Your task to perform on an android device: Go to battery settings Image 0: 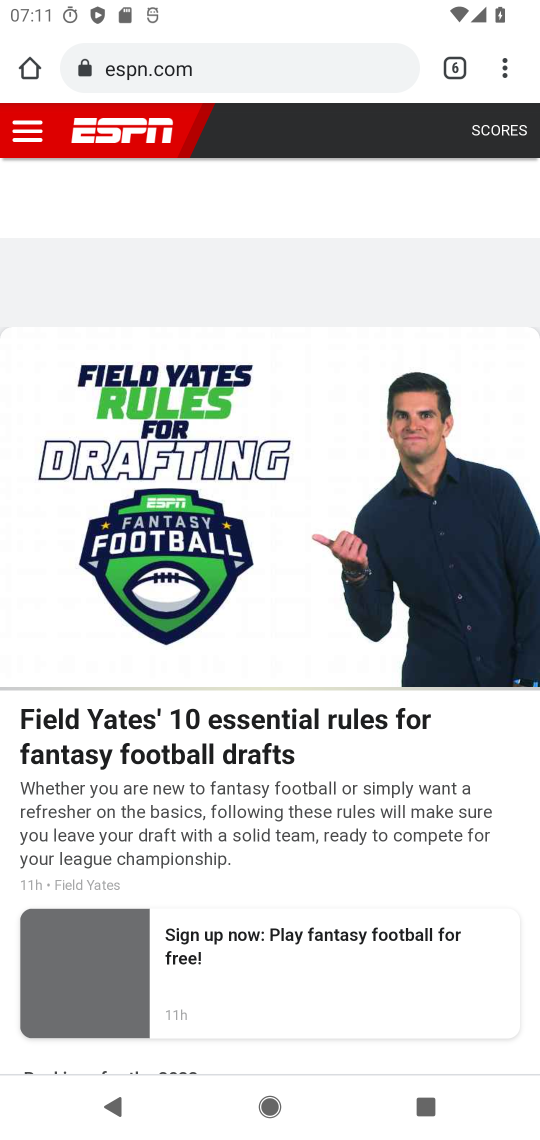
Step 0: press home button
Your task to perform on an android device: Go to battery settings Image 1: 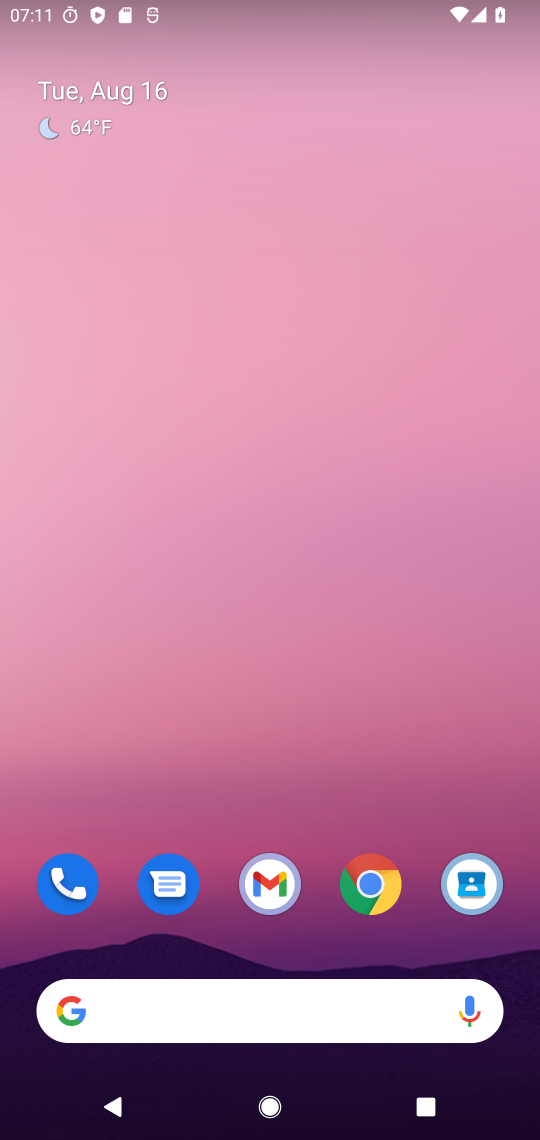
Step 1: drag from (262, 783) to (291, 63)
Your task to perform on an android device: Go to battery settings Image 2: 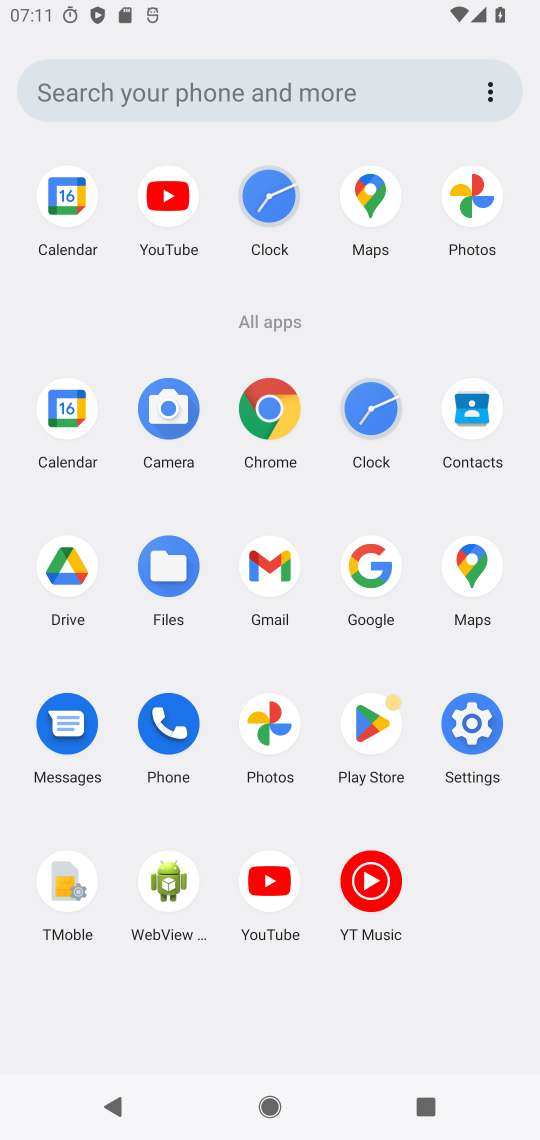
Step 2: click (479, 740)
Your task to perform on an android device: Go to battery settings Image 3: 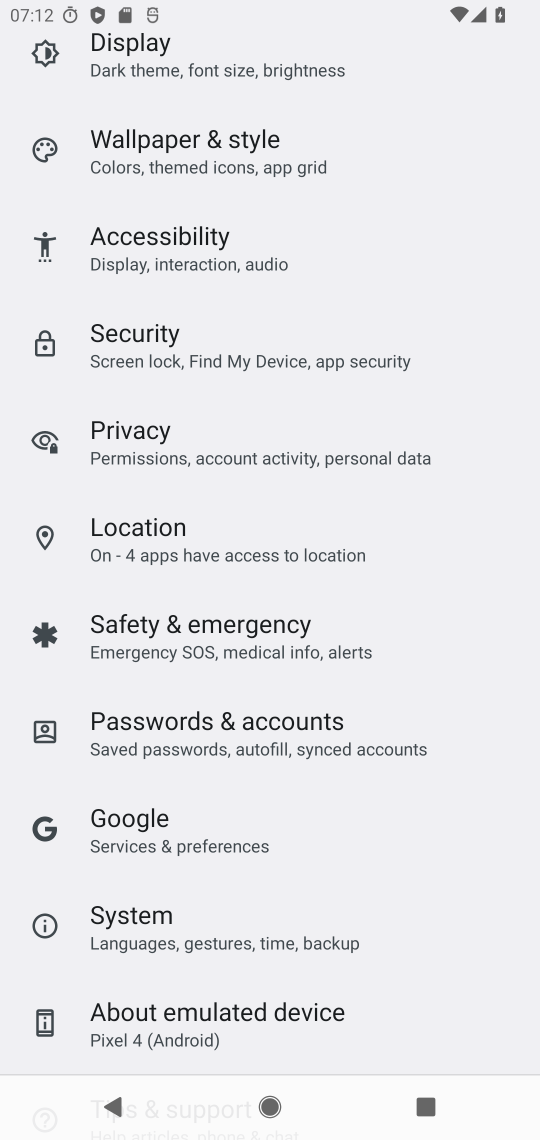
Step 3: drag from (219, 500) to (248, 166)
Your task to perform on an android device: Go to battery settings Image 4: 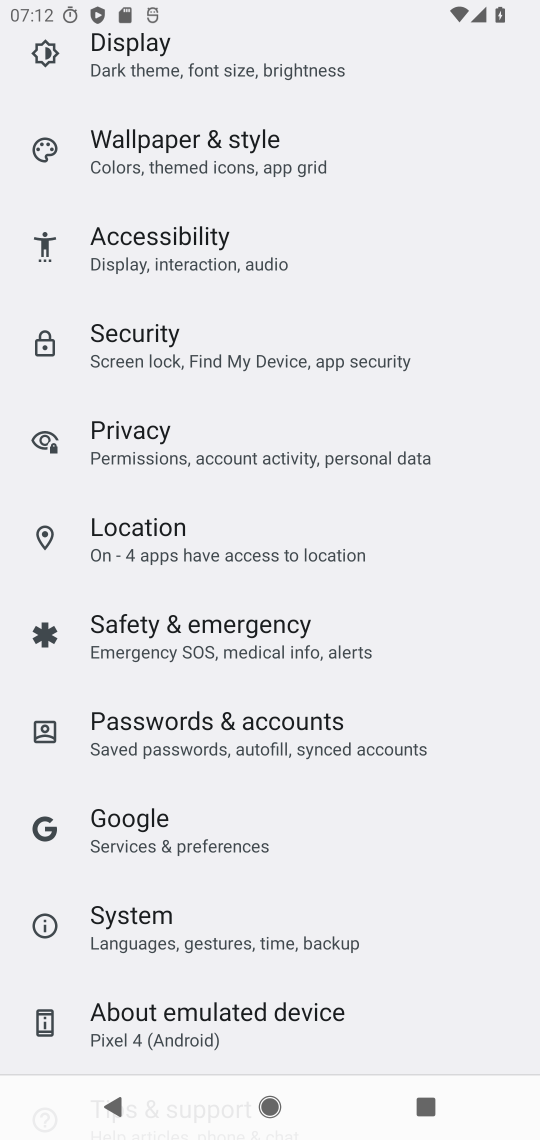
Step 4: drag from (245, 301) to (191, 1131)
Your task to perform on an android device: Go to battery settings Image 5: 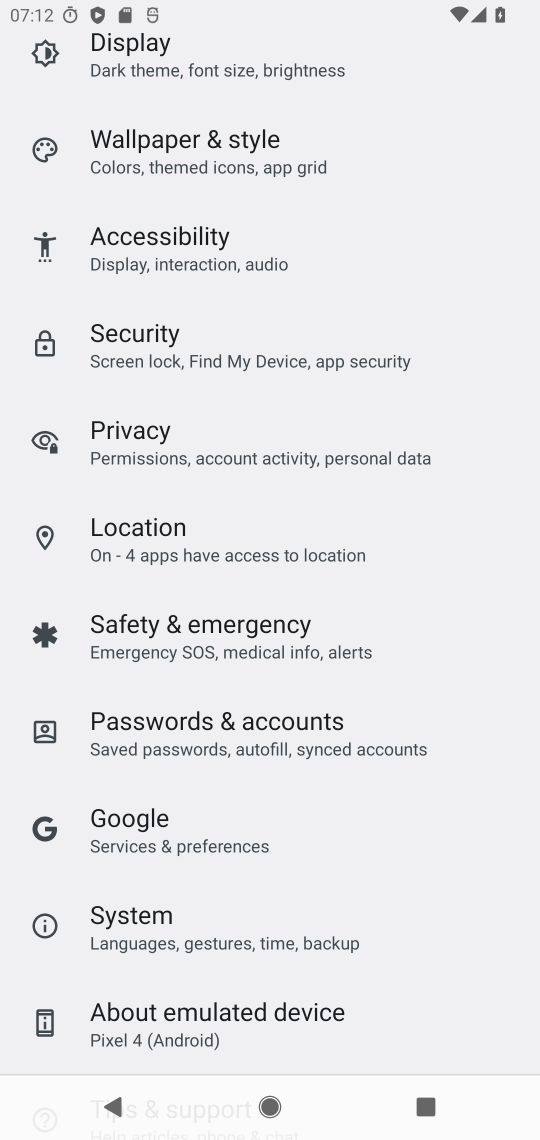
Step 5: drag from (265, 100) to (297, 1015)
Your task to perform on an android device: Go to battery settings Image 6: 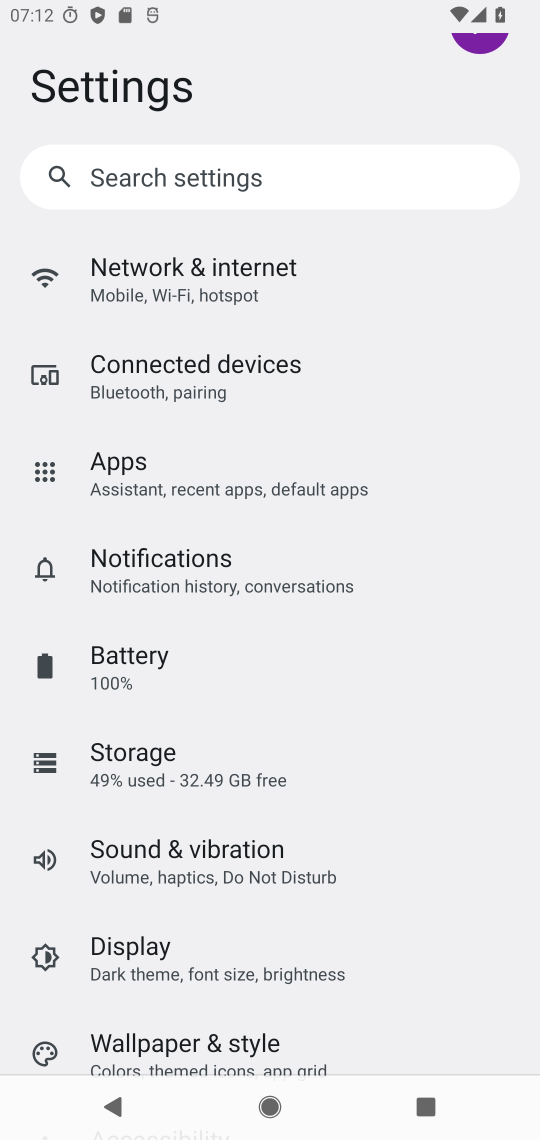
Step 6: click (161, 656)
Your task to perform on an android device: Go to battery settings Image 7: 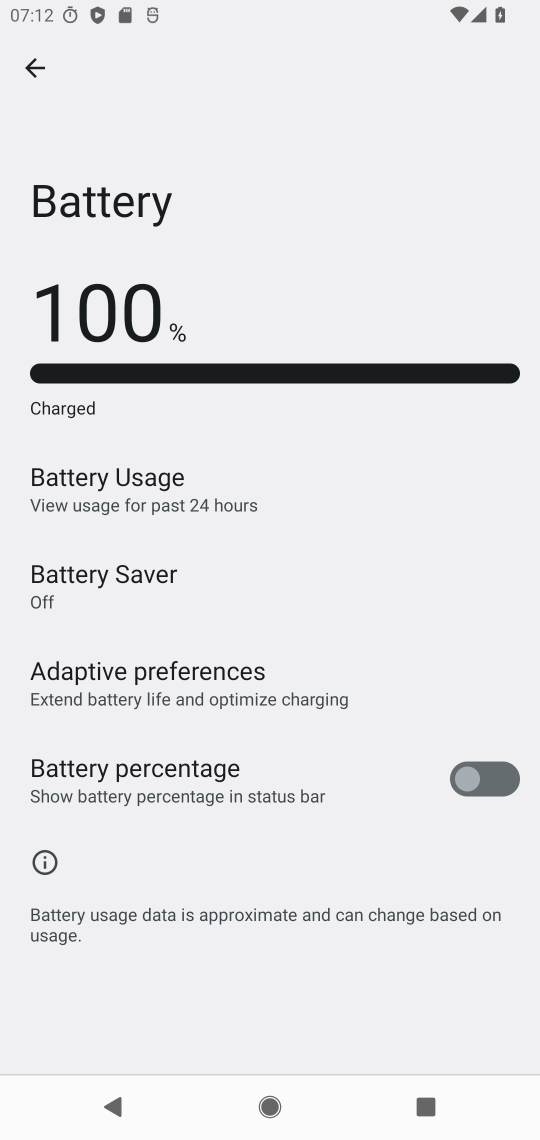
Step 7: task complete